Your task to perform on an android device: turn on showing notifications on the lock screen Image 0: 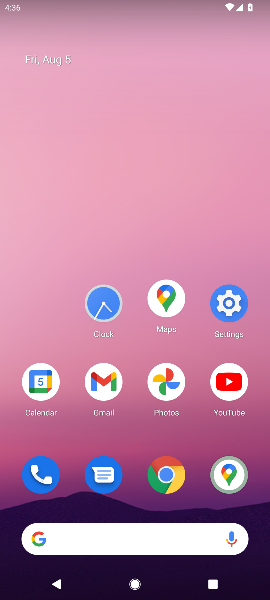
Step 0: click (234, 301)
Your task to perform on an android device: turn on showing notifications on the lock screen Image 1: 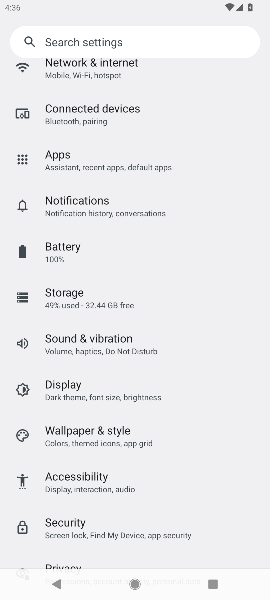
Step 1: click (99, 202)
Your task to perform on an android device: turn on showing notifications on the lock screen Image 2: 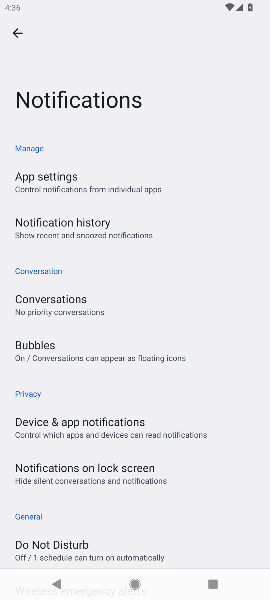
Step 2: click (140, 470)
Your task to perform on an android device: turn on showing notifications on the lock screen Image 3: 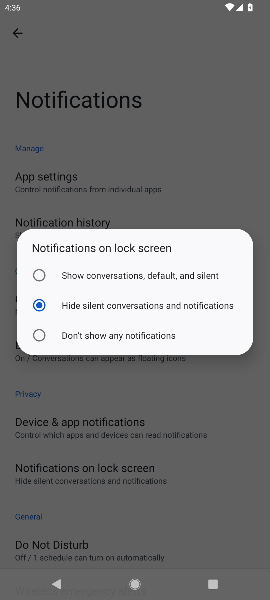
Step 3: click (43, 277)
Your task to perform on an android device: turn on showing notifications on the lock screen Image 4: 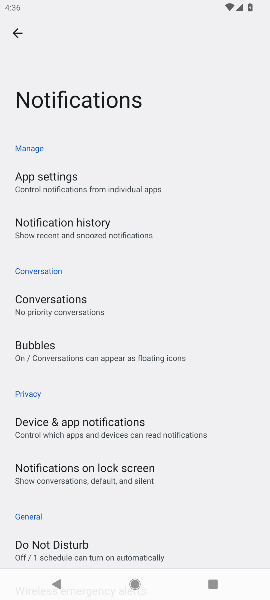
Step 4: task complete